Your task to perform on an android device: delete a single message in the gmail app Image 0: 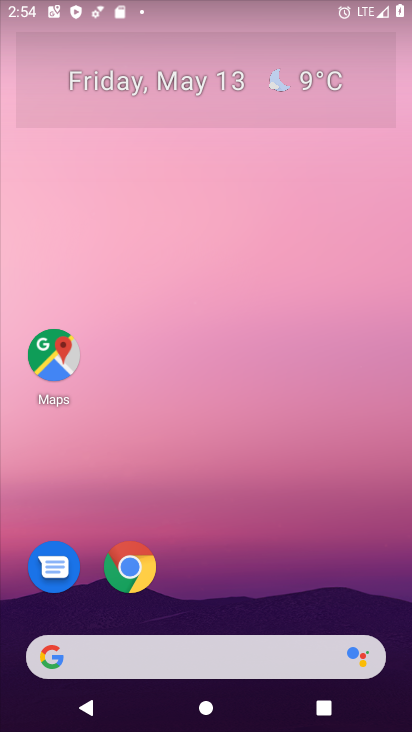
Step 0: drag from (242, 584) to (269, 0)
Your task to perform on an android device: delete a single message in the gmail app Image 1: 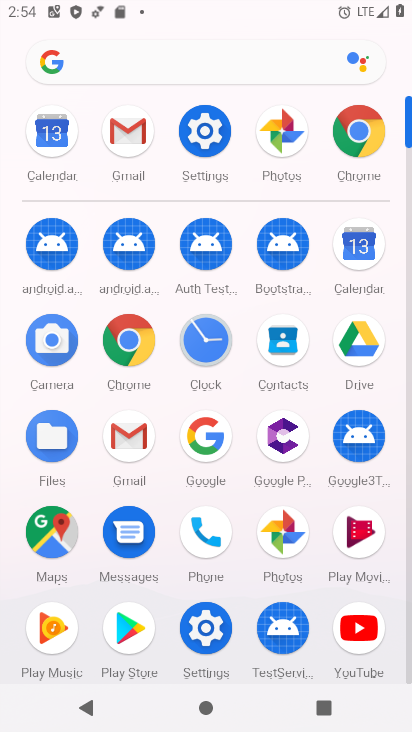
Step 1: click (117, 449)
Your task to perform on an android device: delete a single message in the gmail app Image 2: 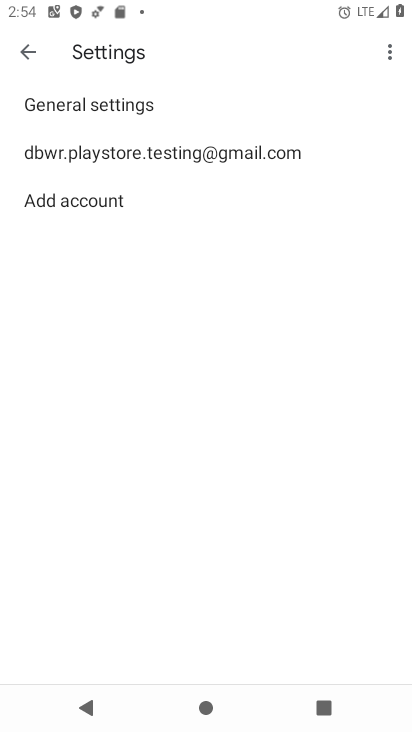
Step 2: click (31, 49)
Your task to perform on an android device: delete a single message in the gmail app Image 3: 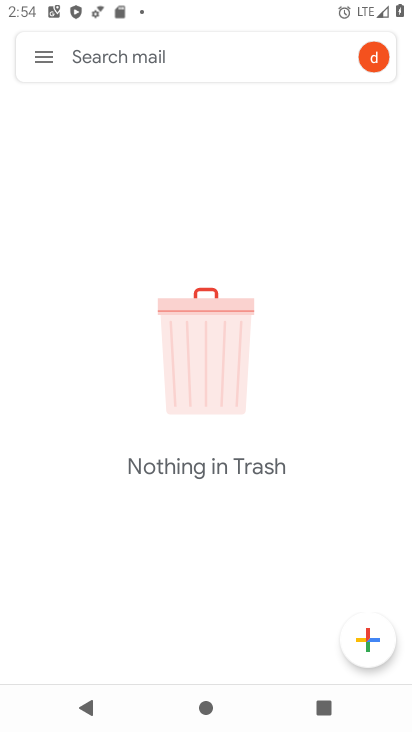
Step 3: click (31, 57)
Your task to perform on an android device: delete a single message in the gmail app Image 4: 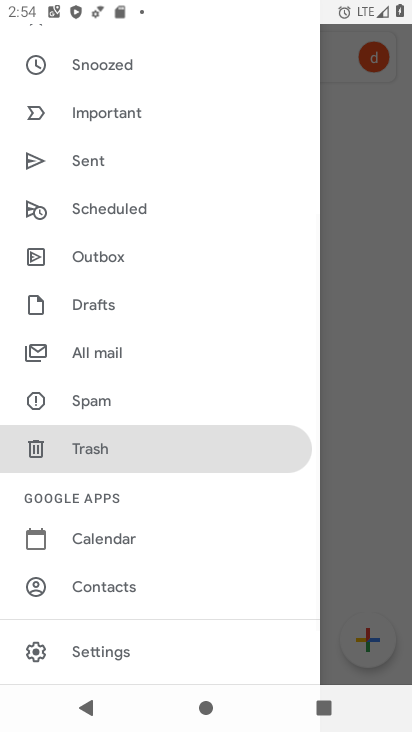
Step 4: click (140, 348)
Your task to perform on an android device: delete a single message in the gmail app Image 5: 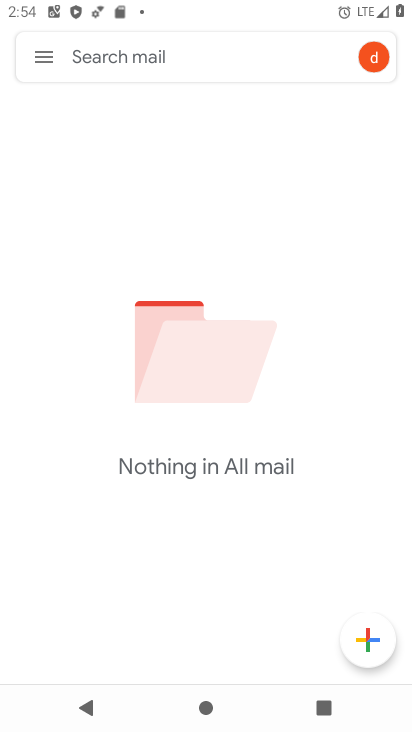
Step 5: task complete